Your task to perform on an android device: View the shopping cart on target. Search for logitech g pro on target, select the first entry, add it to the cart, then select checkout. Image 0: 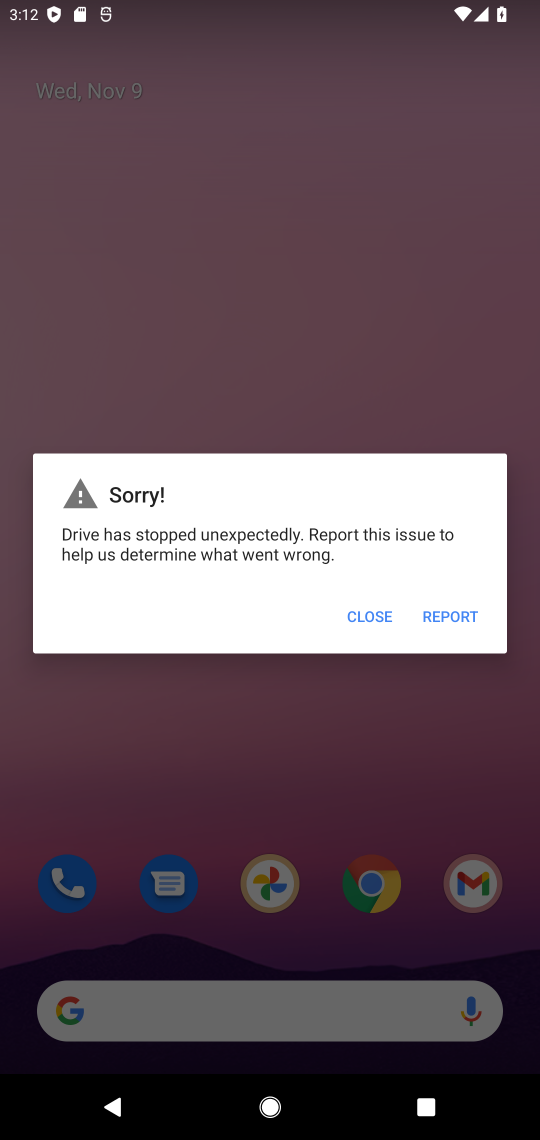
Step 0: click (372, 609)
Your task to perform on an android device: View the shopping cart on target. Search for logitech g pro on target, select the first entry, add it to the cart, then select checkout. Image 1: 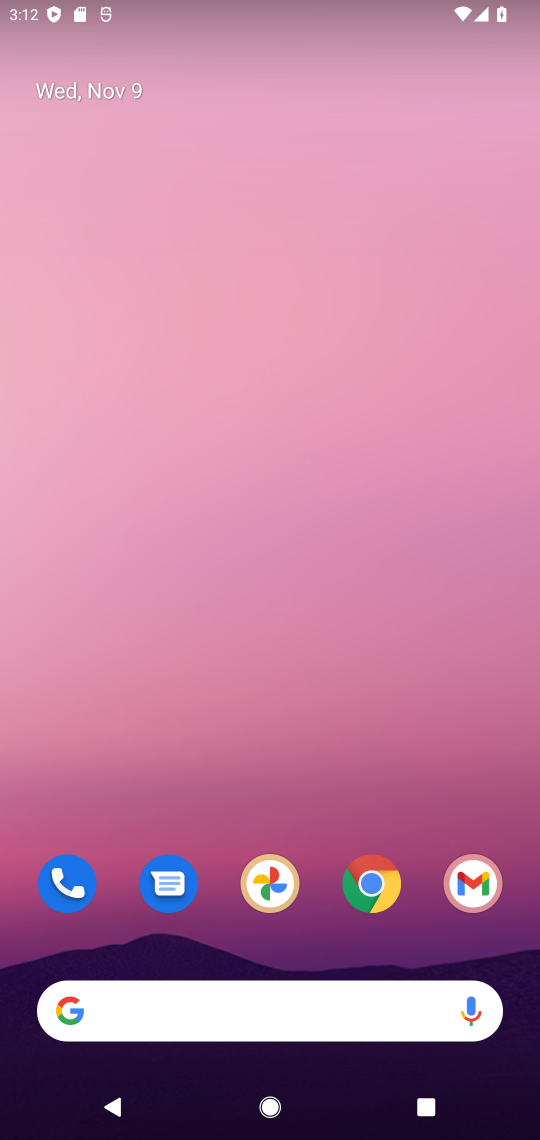
Step 1: click (353, 893)
Your task to perform on an android device: View the shopping cart on target. Search for logitech g pro on target, select the first entry, add it to the cart, then select checkout. Image 2: 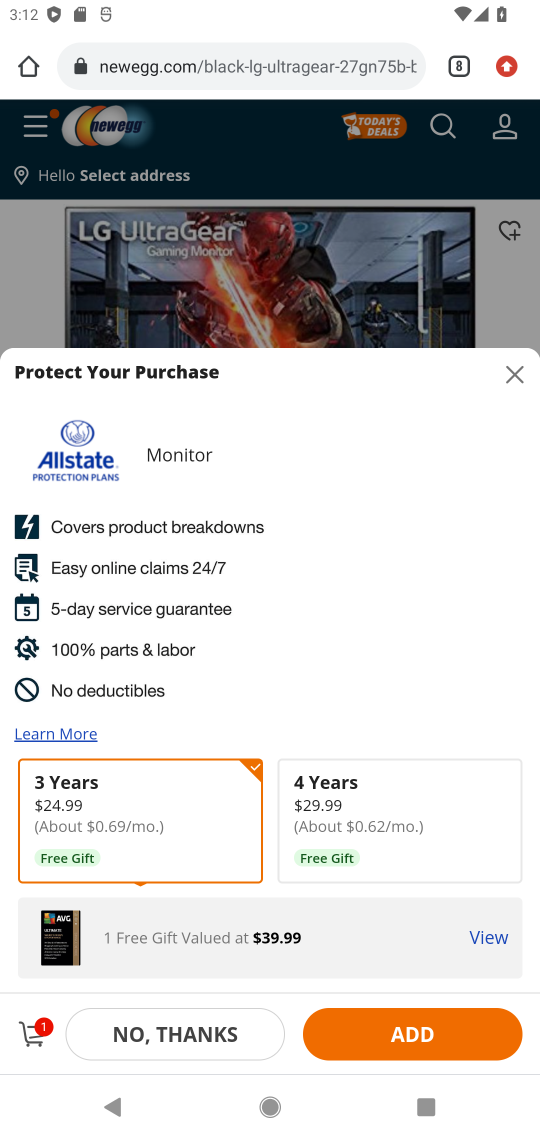
Step 2: click (454, 56)
Your task to perform on an android device: View the shopping cart on target. Search for logitech g pro on target, select the first entry, add it to the cart, then select checkout. Image 3: 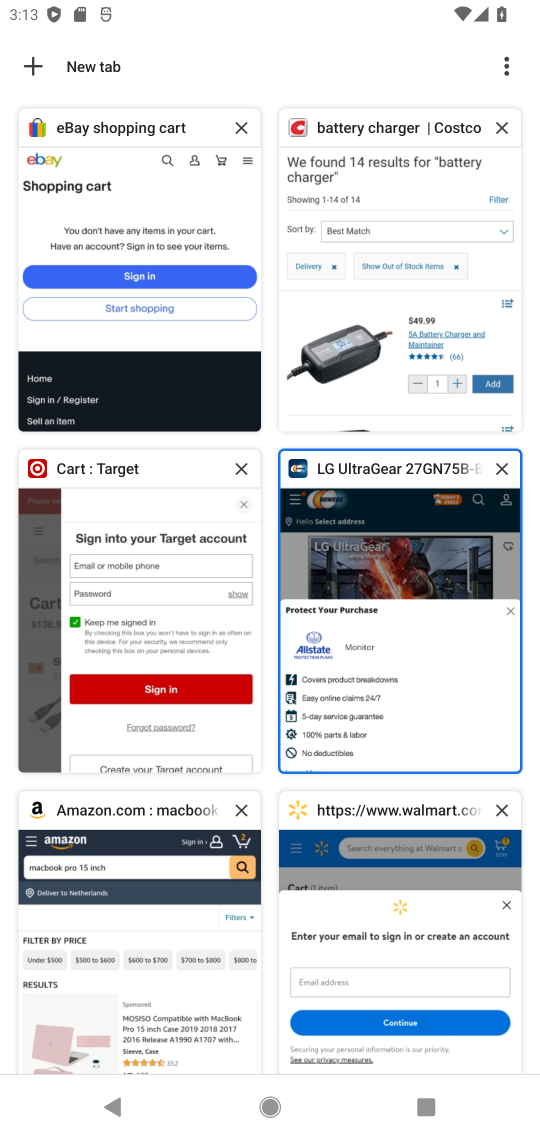
Step 3: click (197, 568)
Your task to perform on an android device: View the shopping cart on target. Search for logitech g pro on target, select the first entry, add it to the cart, then select checkout. Image 4: 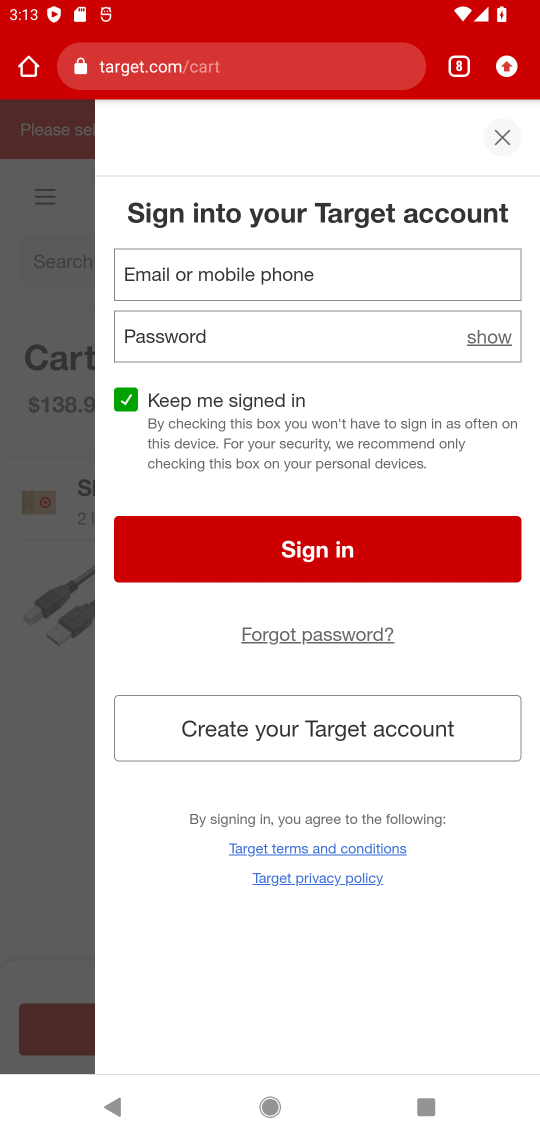
Step 4: click (495, 130)
Your task to perform on an android device: View the shopping cart on target. Search for logitech g pro on target, select the first entry, add it to the cart, then select checkout. Image 5: 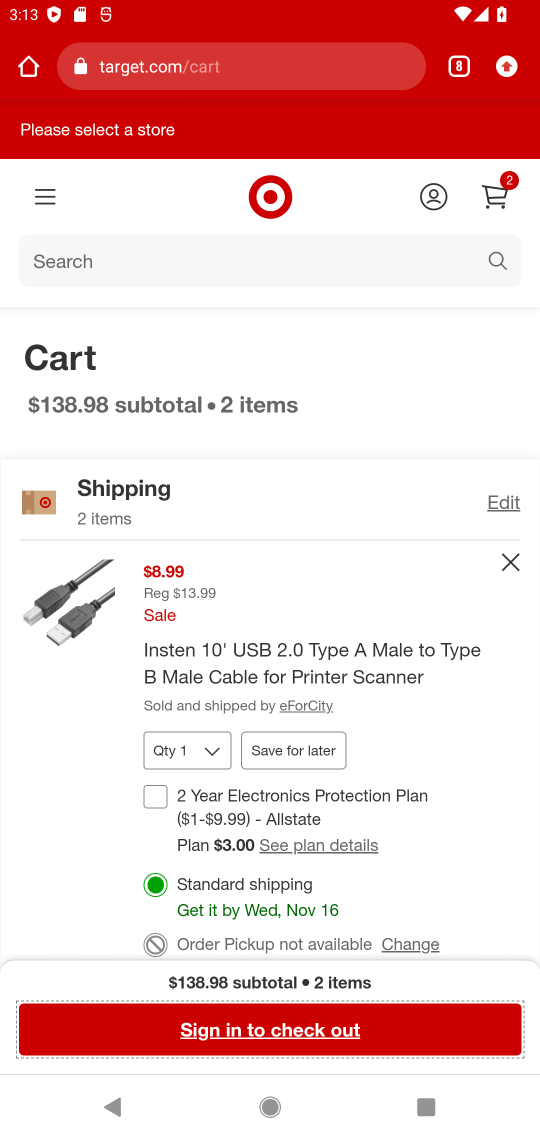
Step 5: click (53, 257)
Your task to perform on an android device: View the shopping cart on target. Search for logitech g pro on target, select the first entry, add it to the cart, then select checkout. Image 6: 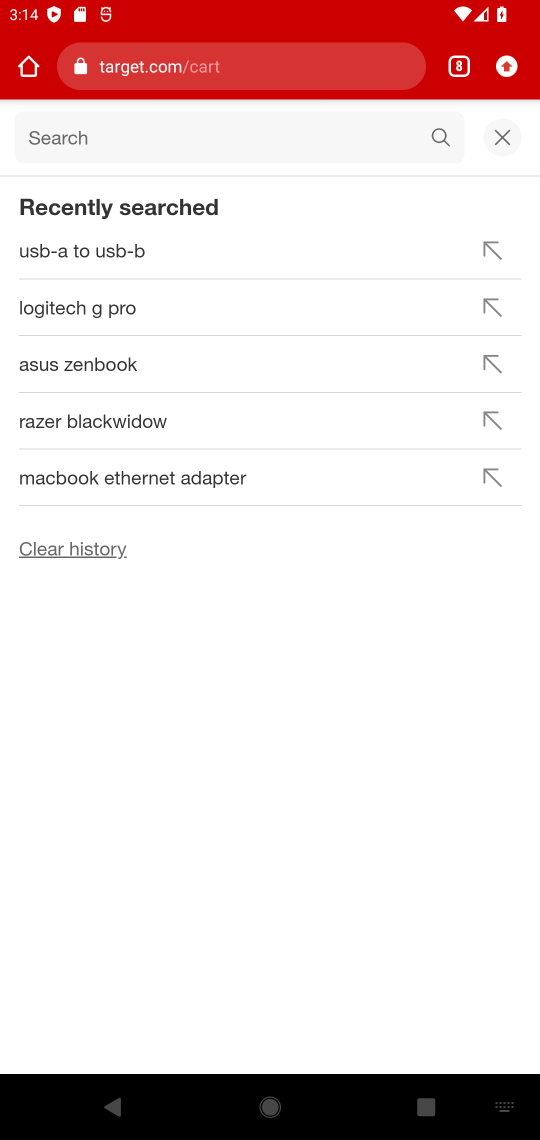
Step 6: type "logitech g pro"
Your task to perform on an android device: View the shopping cart on target. Search for logitech g pro on target, select the first entry, add it to the cart, then select checkout. Image 7: 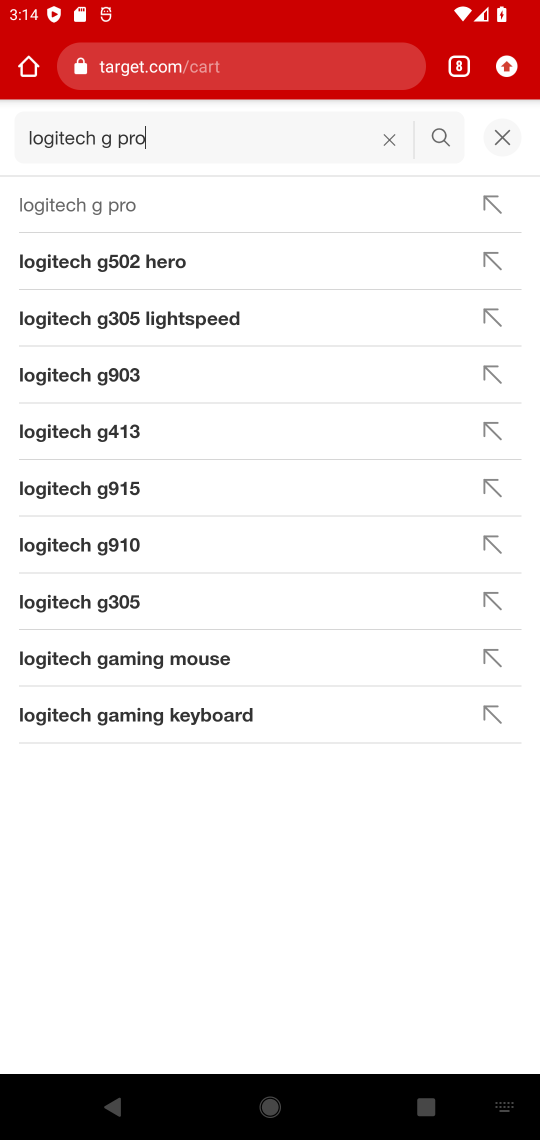
Step 7: click (76, 192)
Your task to perform on an android device: View the shopping cart on target. Search for logitech g pro on target, select the first entry, add it to the cart, then select checkout. Image 8: 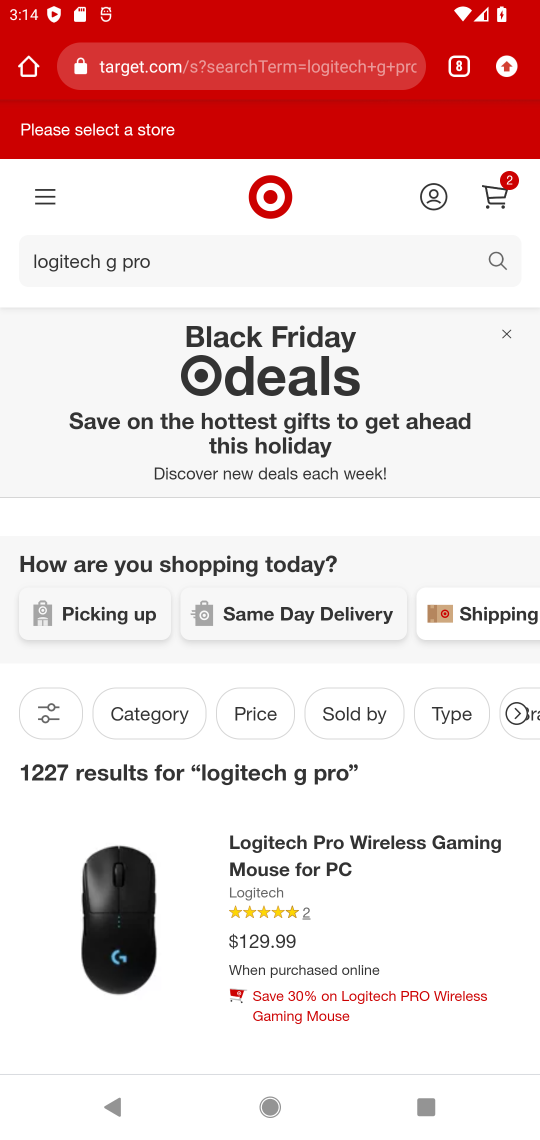
Step 8: click (502, 260)
Your task to perform on an android device: View the shopping cart on target. Search for logitech g pro on target, select the first entry, add it to the cart, then select checkout. Image 9: 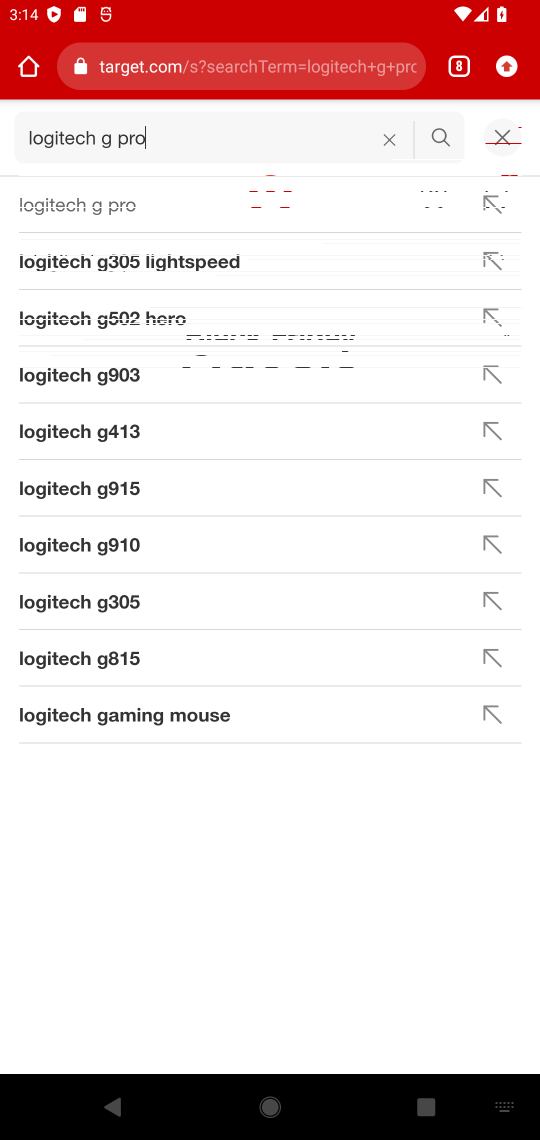
Step 9: click (118, 200)
Your task to perform on an android device: View the shopping cart on target. Search for logitech g pro on target, select the first entry, add it to the cart, then select checkout. Image 10: 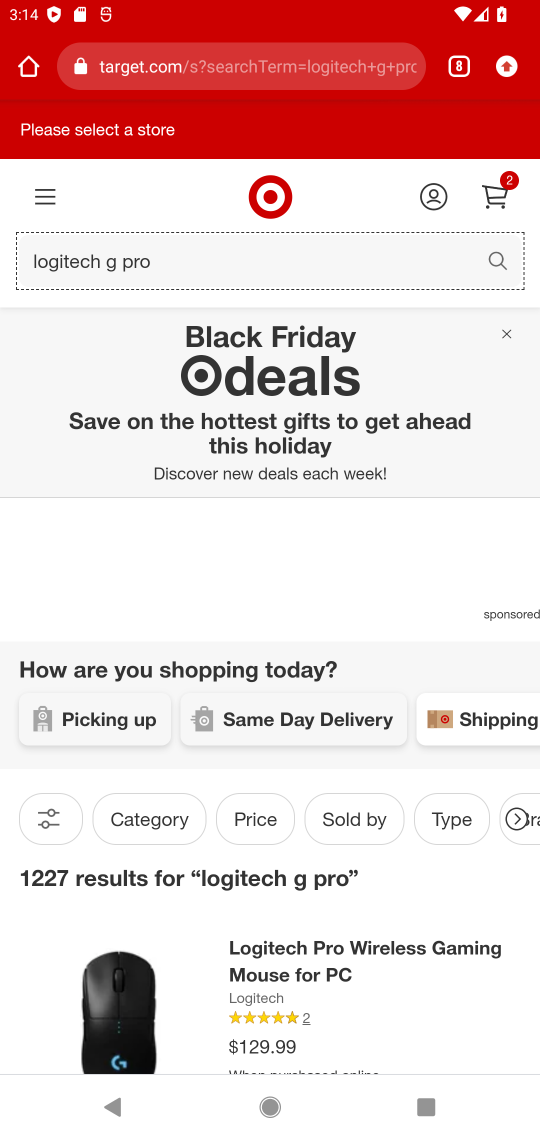
Step 10: drag from (394, 979) to (396, 690)
Your task to perform on an android device: View the shopping cart on target. Search for logitech g pro on target, select the first entry, add it to the cart, then select checkout. Image 11: 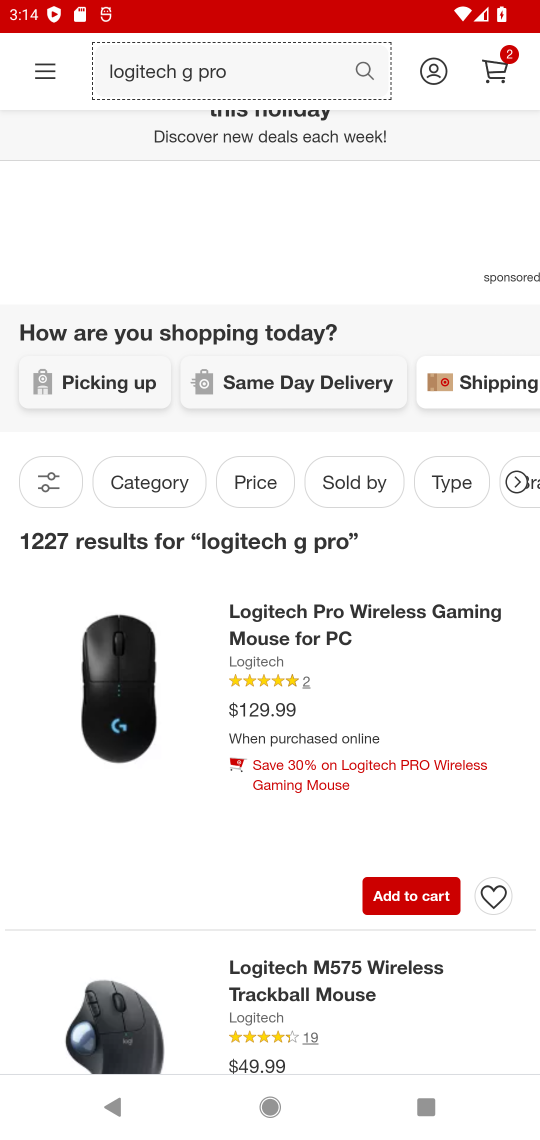
Step 11: drag from (352, 1040) to (476, 75)
Your task to perform on an android device: View the shopping cart on target. Search for logitech g pro on target, select the first entry, add it to the cart, then select checkout. Image 12: 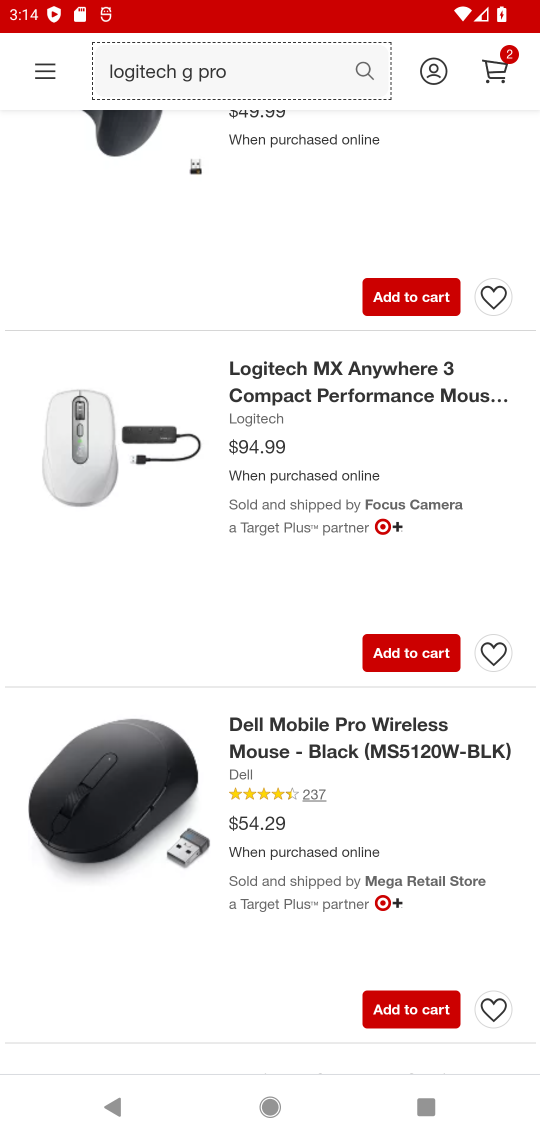
Step 12: drag from (358, 835) to (441, 388)
Your task to perform on an android device: View the shopping cart on target. Search for logitech g pro on target, select the first entry, add it to the cart, then select checkout. Image 13: 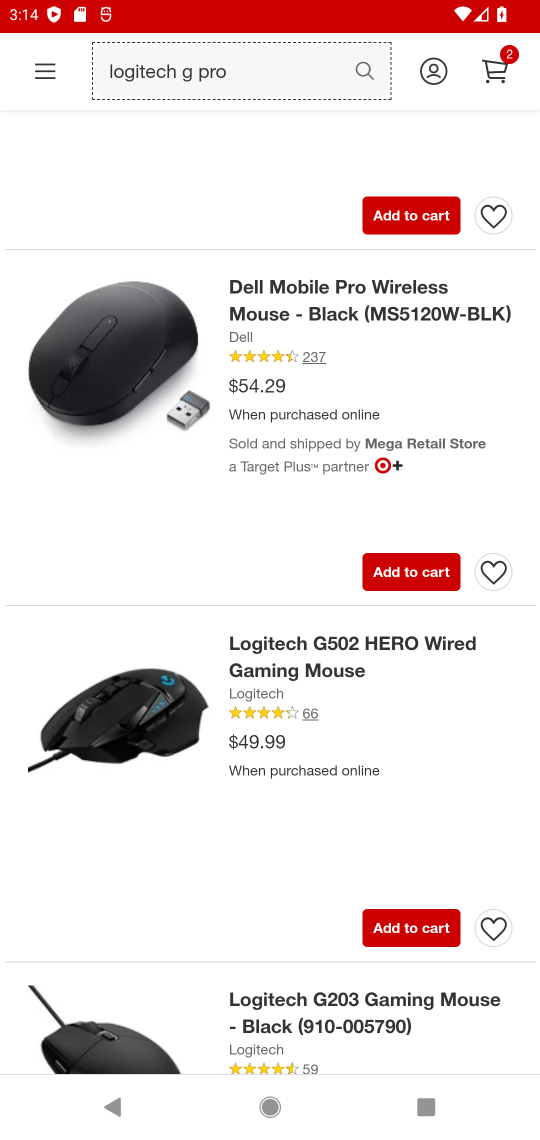
Step 13: click (387, 924)
Your task to perform on an android device: View the shopping cart on target. Search for logitech g pro on target, select the first entry, add it to the cart, then select checkout. Image 14: 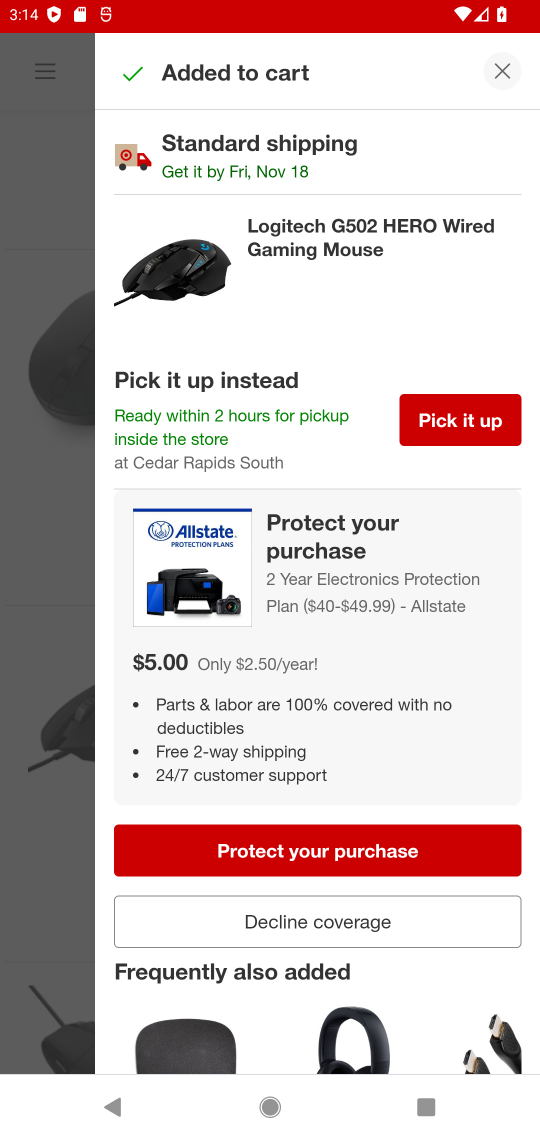
Step 14: task complete